Your task to perform on an android device: choose inbox layout in the gmail app Image 0: 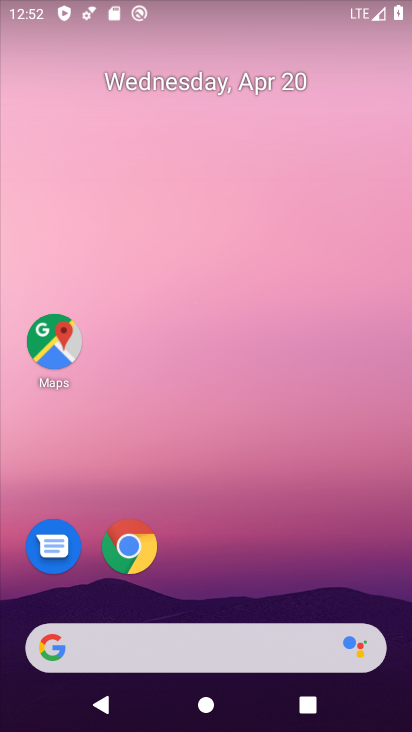
Step 0: drag from (219, 561) to (385, 24)
Your task to perform on an android device: choose inbox layout in the gmail app Image 1: 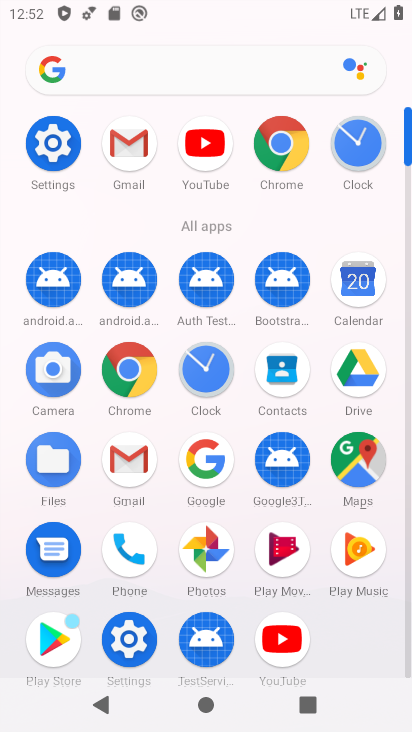
Step 1: click (132, 460)
Your task to perform on an android device: choose inbox layout in the gmail app Image 2: 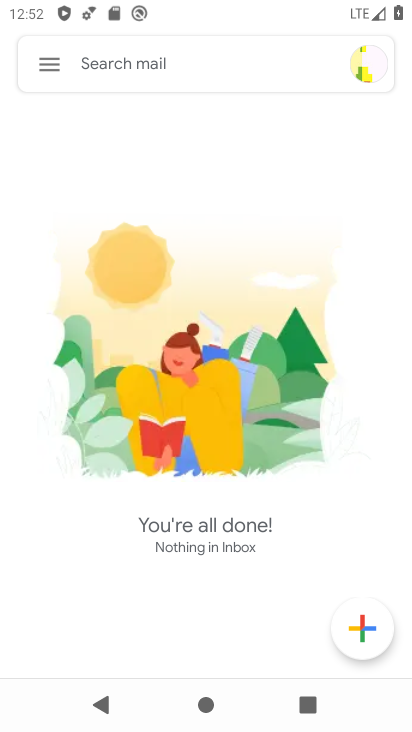
Step 2: click (56, 63)
Your task to perform on an android device: choose inbox layout in the gmail app Image 3: 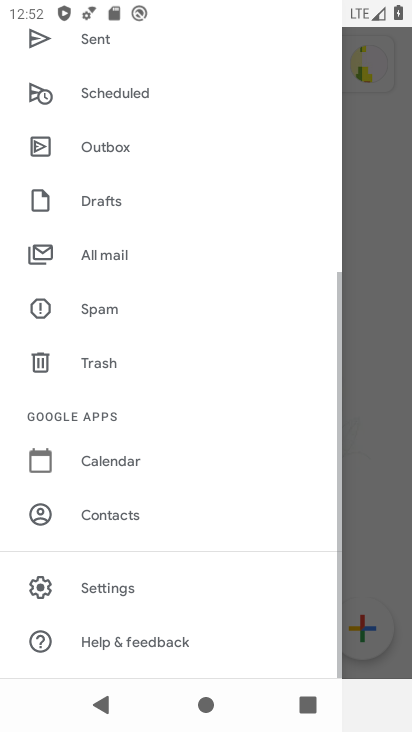
Step 3: click (163, 592)
Your task to perform on an android device: choose inbox layout in the gmail app Image 4: 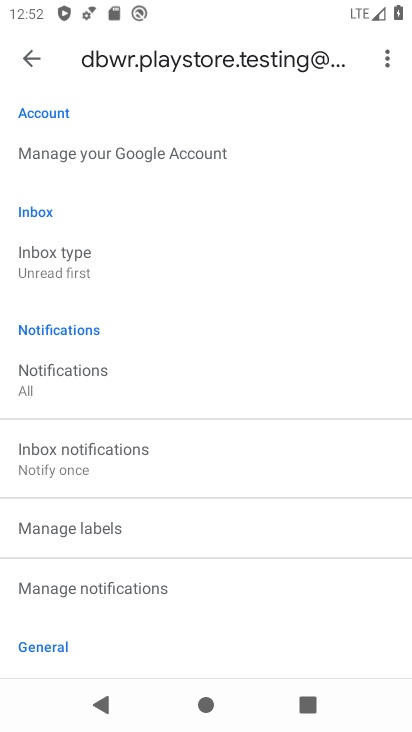
Step 4: drag from (150, 613) to (226, 377)
Your task to perform on an android device: choose inbox layout in the gmail app Image 5: 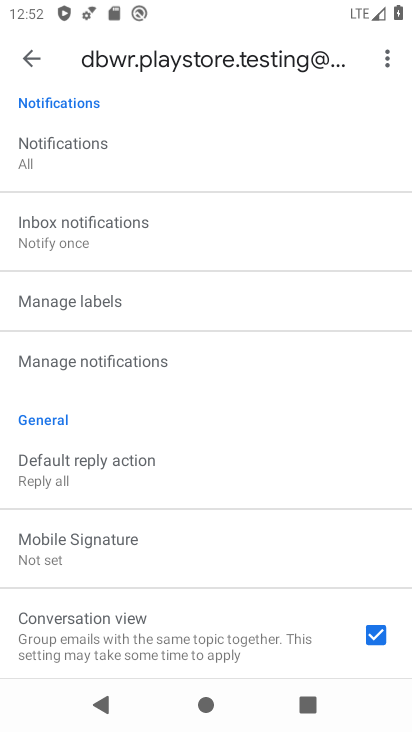
Step 5: drag from (160, 235) to (152, 628)
Your task to perform on an android device: choose inbox layout in the gmail app Image 6: 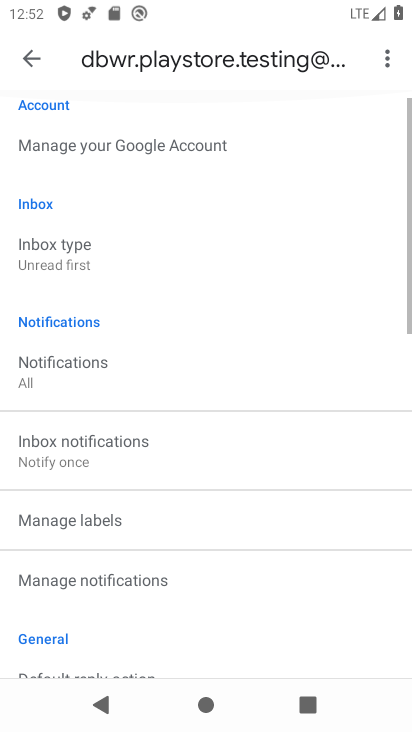
Step 6: click (112, 257)
Your task to perform on an android device: choose inbox layout in the gmail app Image 7: 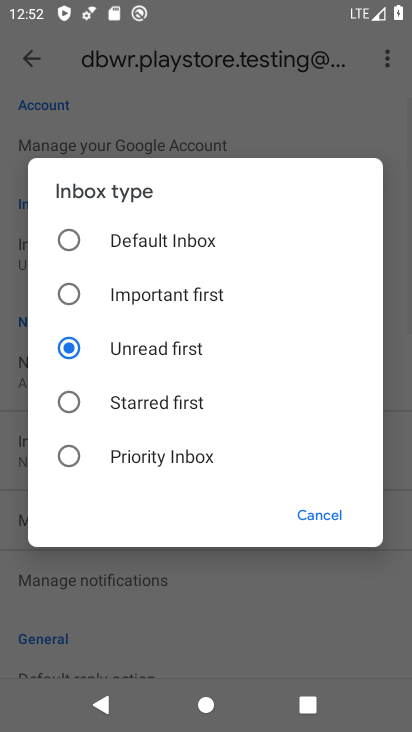
Step 7: click (162, 459)
Your task to perform on an android device: choose inbox layout in the gmail app Image 8: 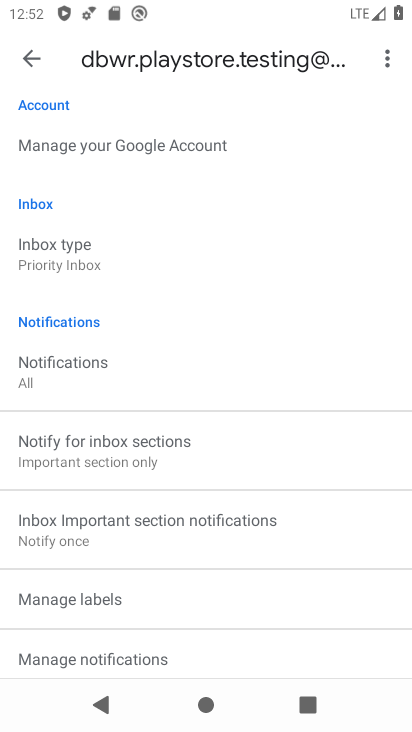
Step 8: task complete